Your task to perform on an android device: turn off notifications settings in the gmail app Image 0: 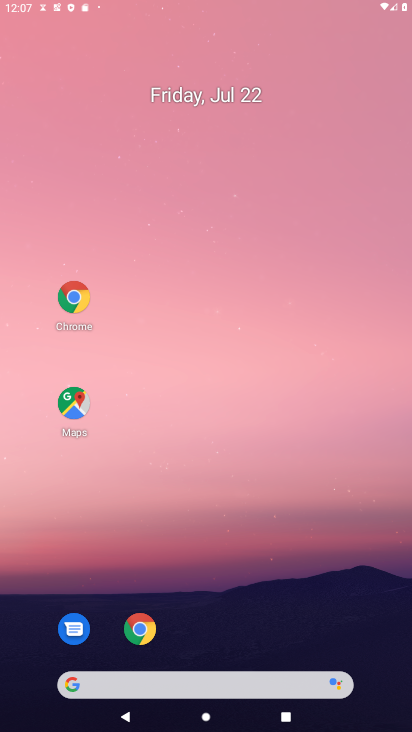
Step 0: drag from (204, 567) to (194, 212)
Your task to perform on an android device: turn off notifications settings in the gmail app Image 1: 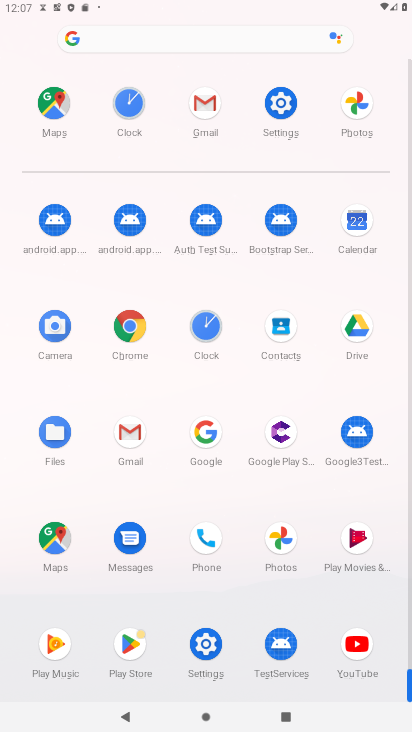
Step 1: click (132, 433)
Your task to perform on an android device: turn off notifications settings in the gmail app Image 2: 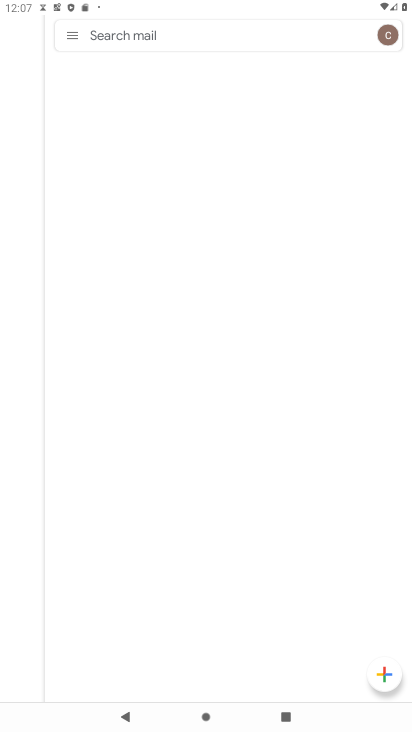
Step 2: click (130, 429)
Your task to perform on an android device: turn off notifications settings in the gmail app Image 3: 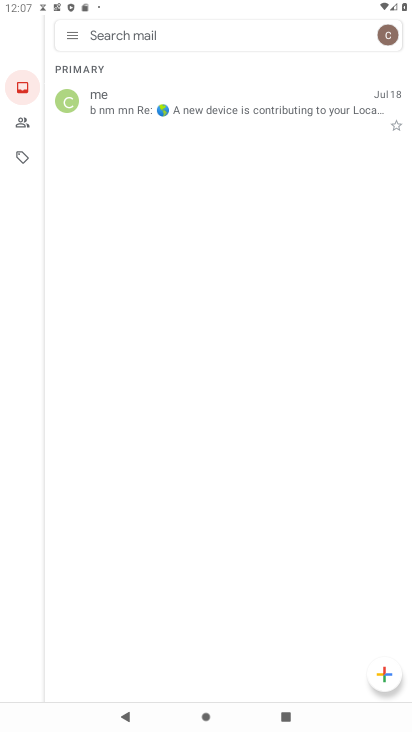
Step 3: drag from (72, 40) to (72, 107)
Your task to perform on an android device: turn off notifications settings in the gmail app Image 4: 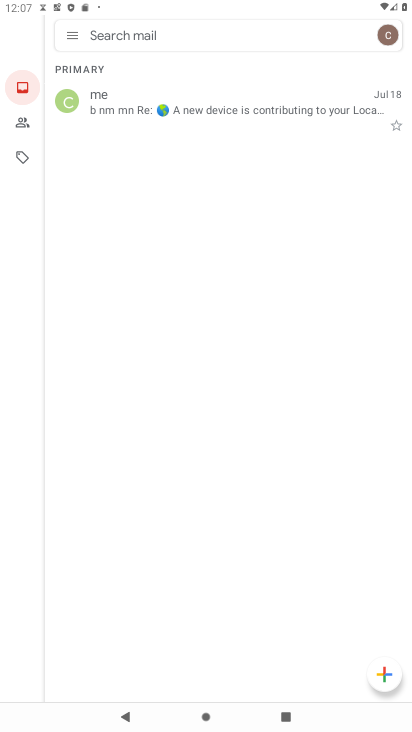
Step 4: click (72, 42)
Your task to perform on an android device: turn off notifications settings in the gmail app Image 5: 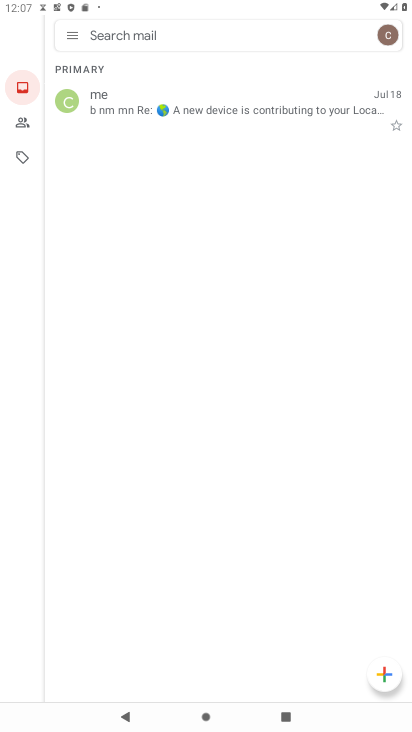
Step 5: click (71, 41)
Your task to perform on an android device: turn off notifications settings in the gmail app Image 6: 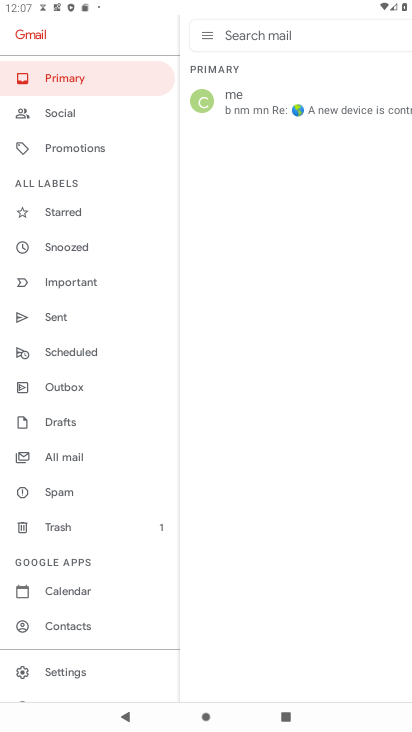
Step 6: click (63, 672)
Your task to perform on an android device: turn off notifications settings in the gmail app Image 7: 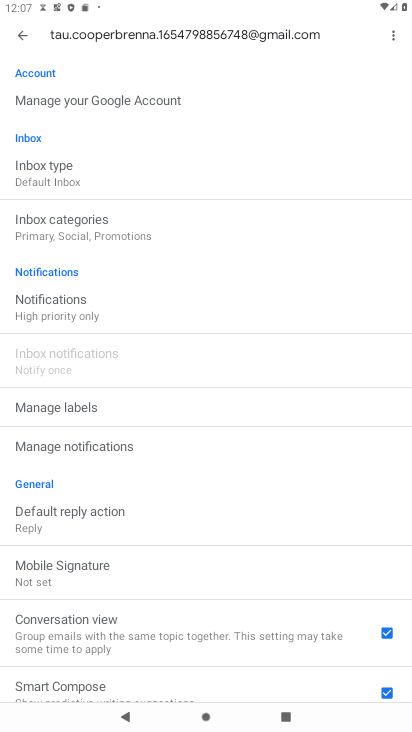
Step 7: click (43, 309)
Your task to perform on an android device: turn off notifications settings in the gmail app Image 8: 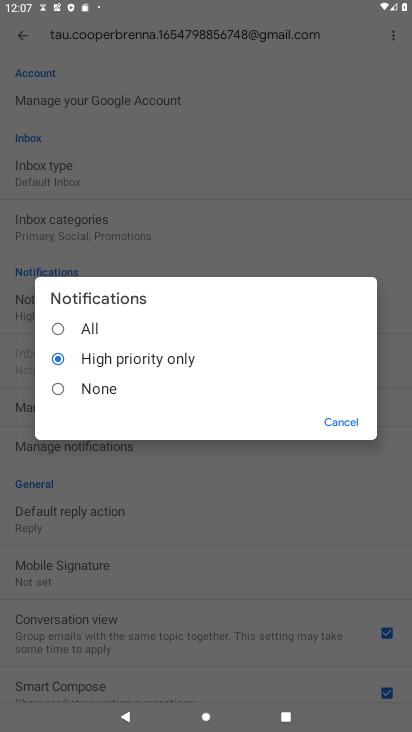
Step 8: click (55, 388)
Your task to perform on an android device: turn off notifications settings in the gmail app Image 9: 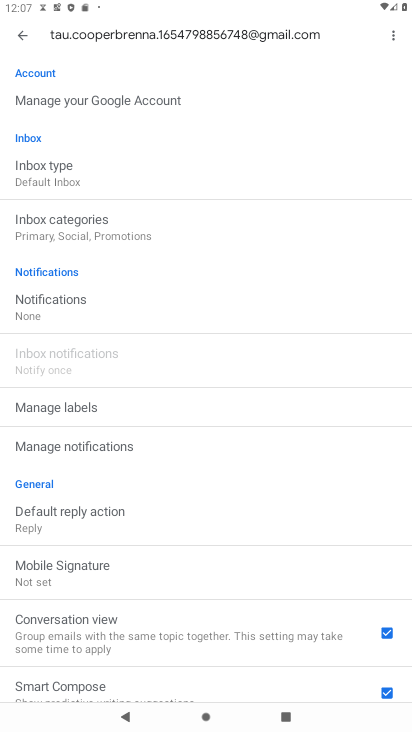
Step 9: task complete